Your task to perform on an android device: turn on sleep mode Image 0: 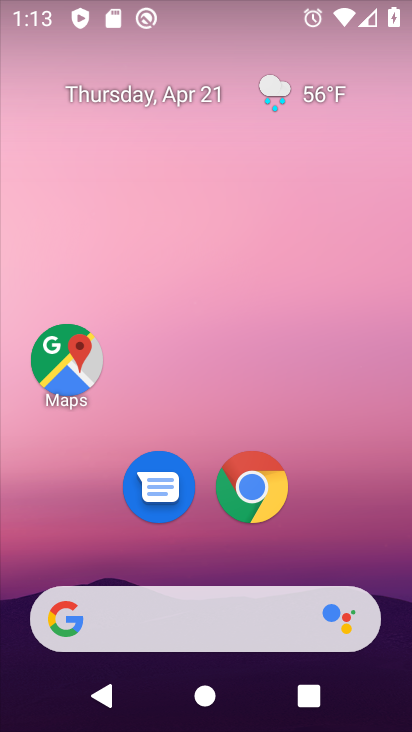
Step 0: drag from (318, 395) to (247, 41)
Your task to perform on an android device: turn on sleep mode Image 1: 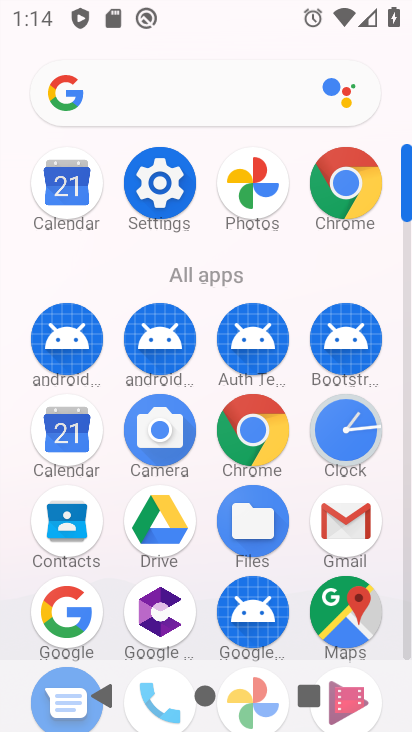
Step 1: click (164, 170)
Your task to perform on an android device: turn on sleep mode Image 2: 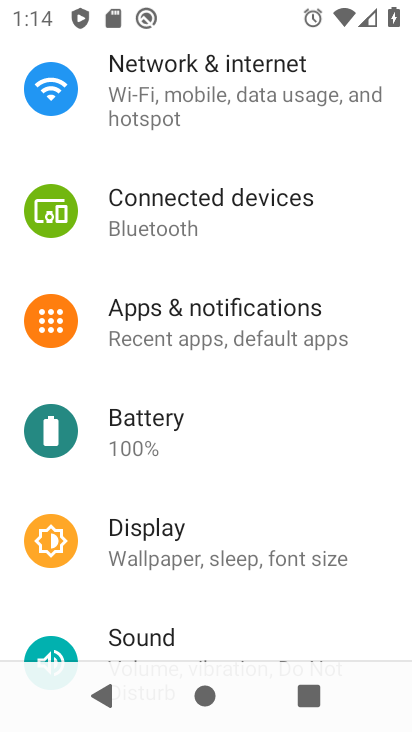
Step 2: click (163, 554)
Your task to perform on an android device: turn on sleep mode Image 3: 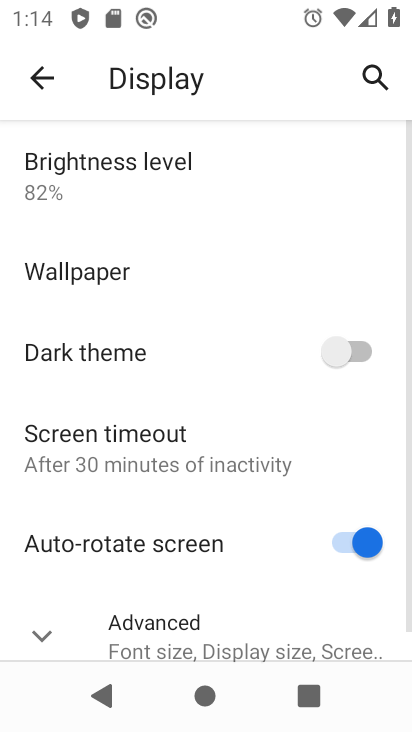
Step 3: click (189, 622)
Your task to perform on an android device: turn on sleep mode Image 4: 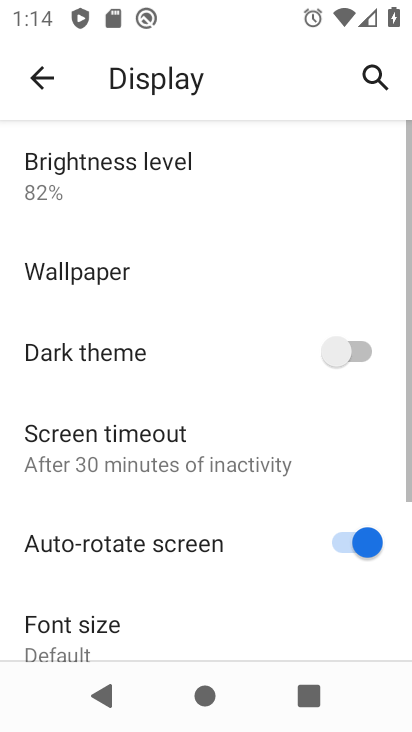
Step 4: task complete